Your task to perform on an android device: visit the assistant section in the google photos Image 0: 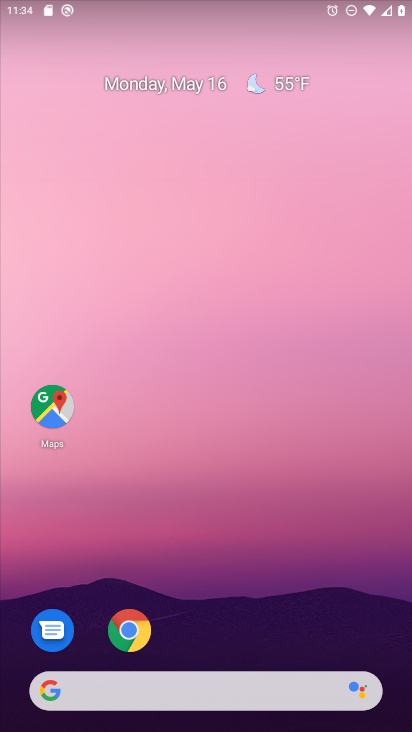
Step 0: drag from (213, 638) to (208, 239)
Your task to perform on an android device: visit the assistant section in the google photos Image 1: 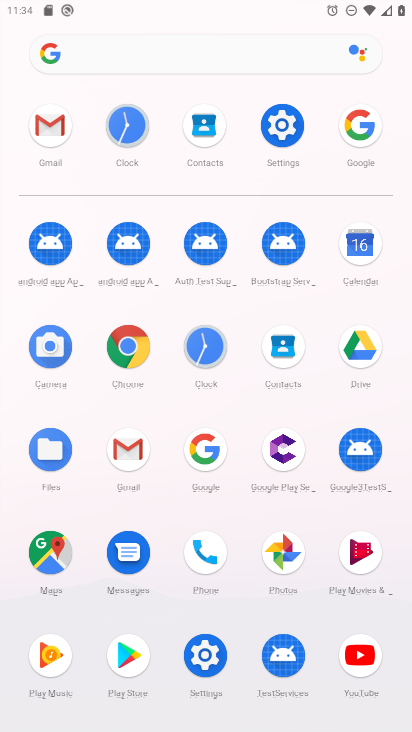
Step 1: click (278, 548)
Your task to perform on an android device: visit the assistant section in the google photos Image 2: 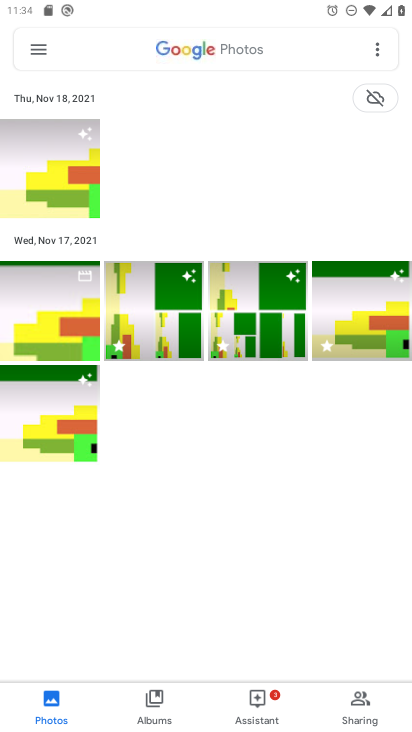
Step 2: click (261, 704)
Your task to perform on an android device: visit the assistant section in the google photos Image 3: 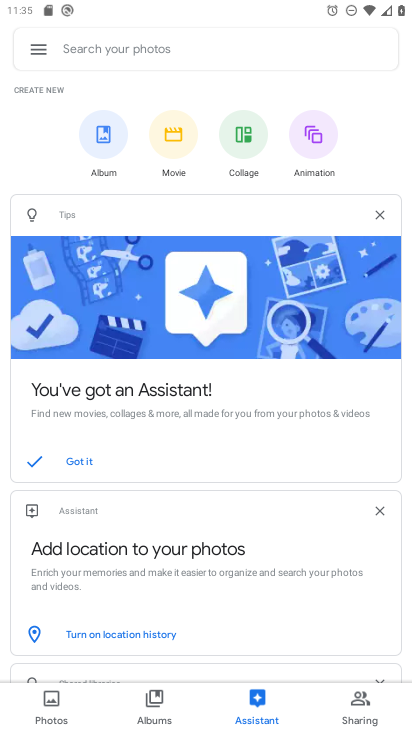
Step 3: task complete